Your task to perform on an android device: turn on wifi Image 0: 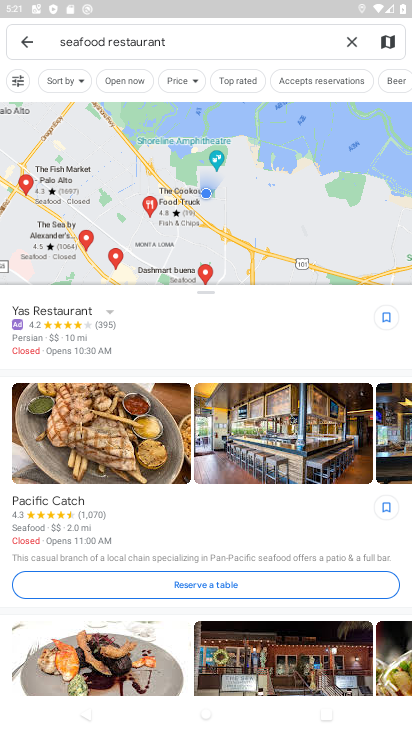
Step 0: press home button
Your task to perform on an android device: turn on wifi Image 1: 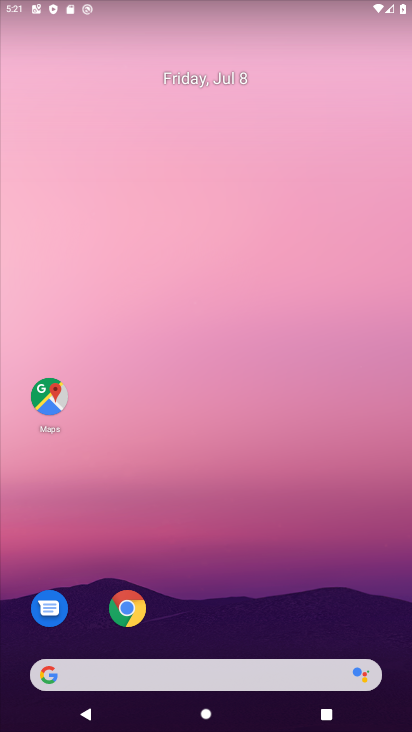
Step 1: drag from (330, 574) to (404, 17)
Your task to perform on an android device: turn on wifi Image 2: 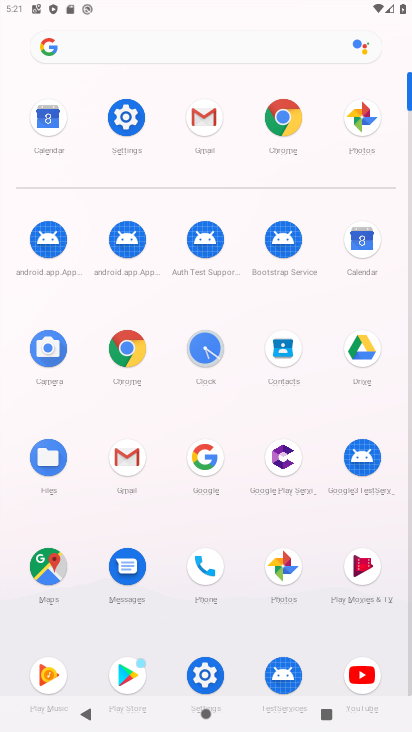
Step 2: click (131, 114)
Your task to perform on an android device: turn on wifi Image 3: 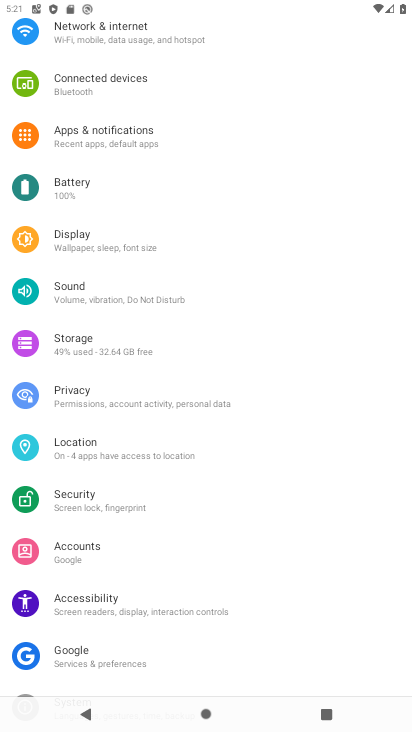
Step 3: drag from (152, 115) to (207, 598)
Your task to perform on an android device: turn on wifi Image 4: 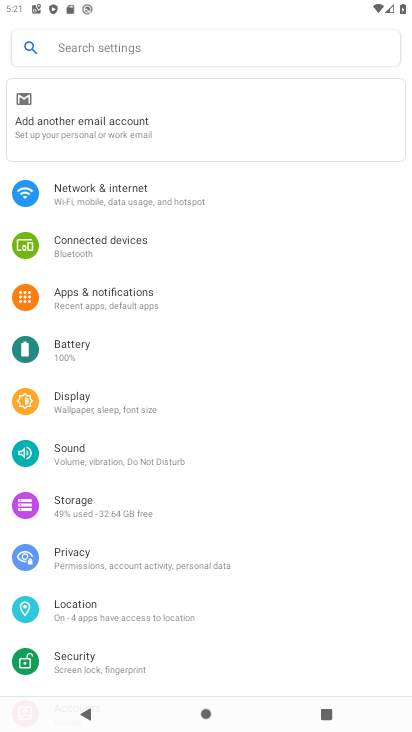
Step 4: click (131, 195)
Your task to perform on an android device: turn on wifi Image 5: 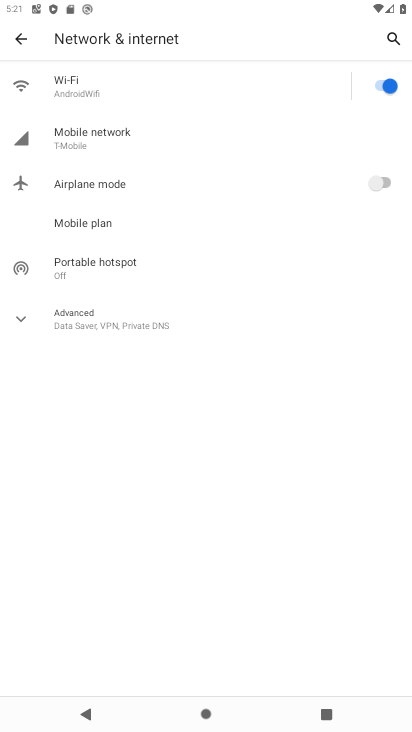
Step 5: task complete